Your task to perform on an android device: Open CNN.com Image 0: 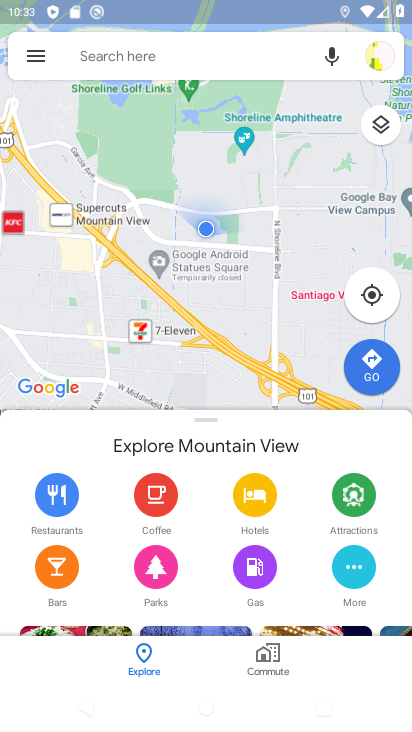
Step 0: press home button
Your task to perform on an android device: Open CNN.com Image 1: 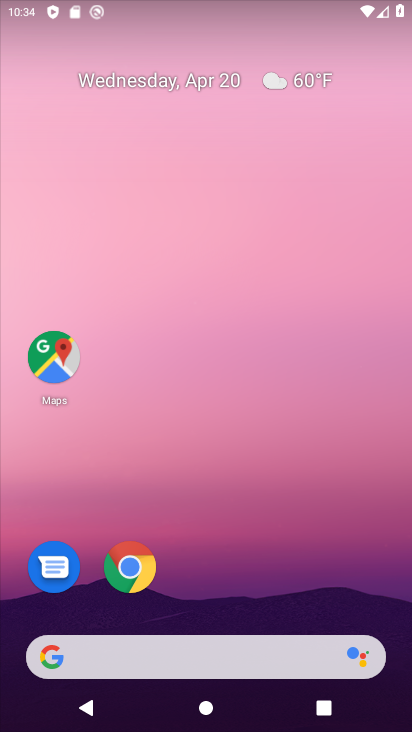
Step 1: click (140, 580)
Your task to perform on an android device: Open CNN.com Image 2: 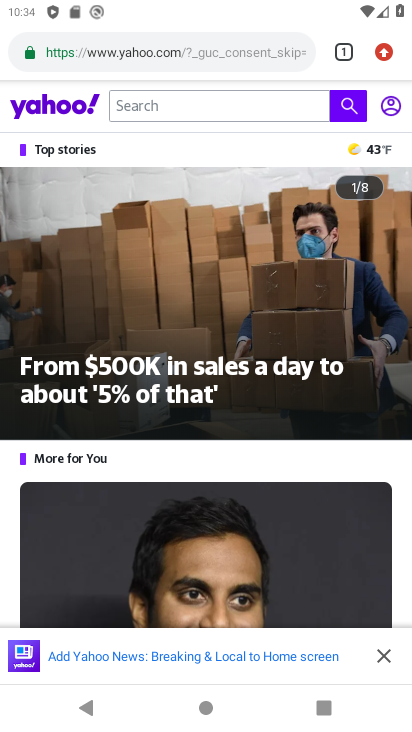
Step 2: click (211, 53)
Your task to perform on an android device: Open CNN.com Image 3: 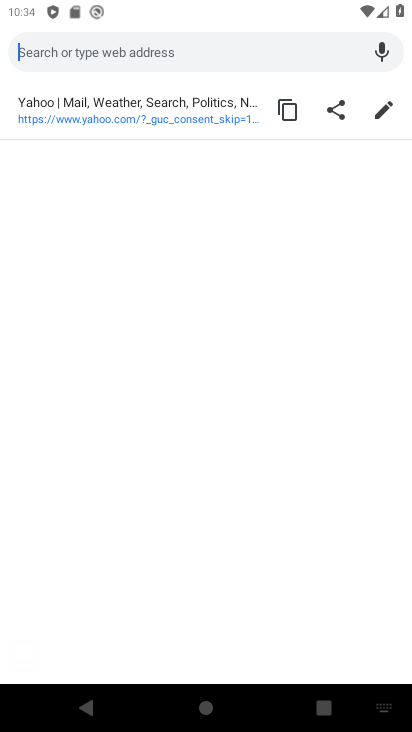
Step 3: type "cnn.com"
Your task to perform on an android device: Open CNN.com Image 4: 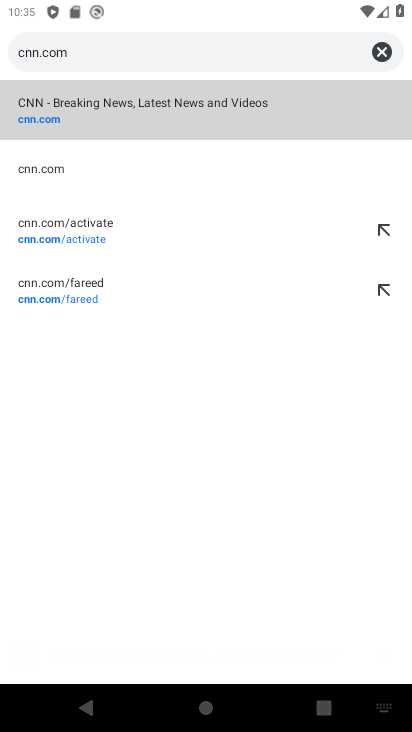
Step 4: click (144, 96)
Your task to perform on an android device: Open CNN.com Image 5: 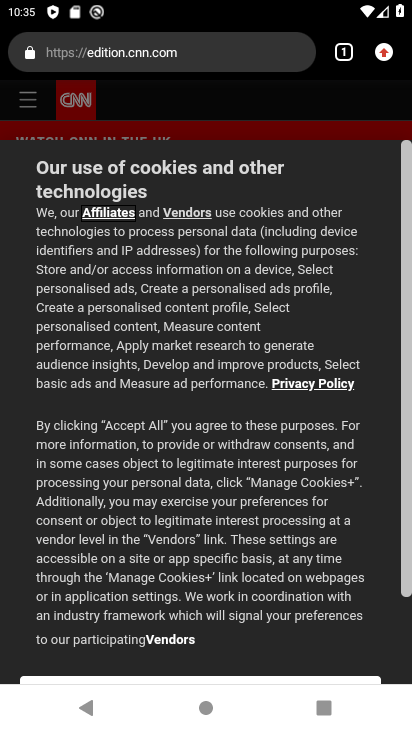
Step 5: task complete